Your task to perform on an android device: install app "Microsoft Authenticator" Image 0: 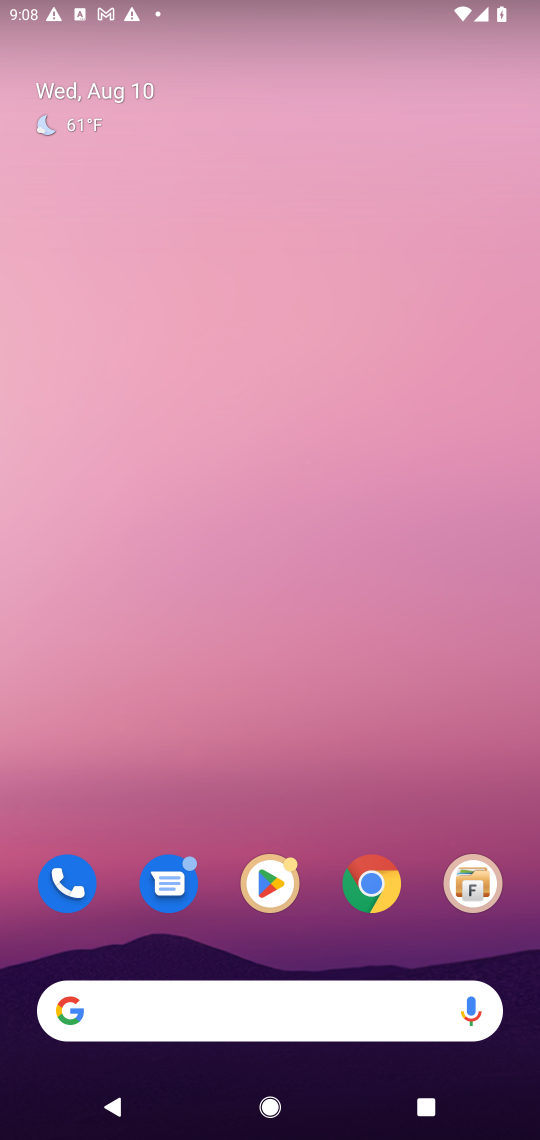
Step 0: click (263, 884)
Your task to perform on an android device: install app "Microsoft Authenticator" Image 1: 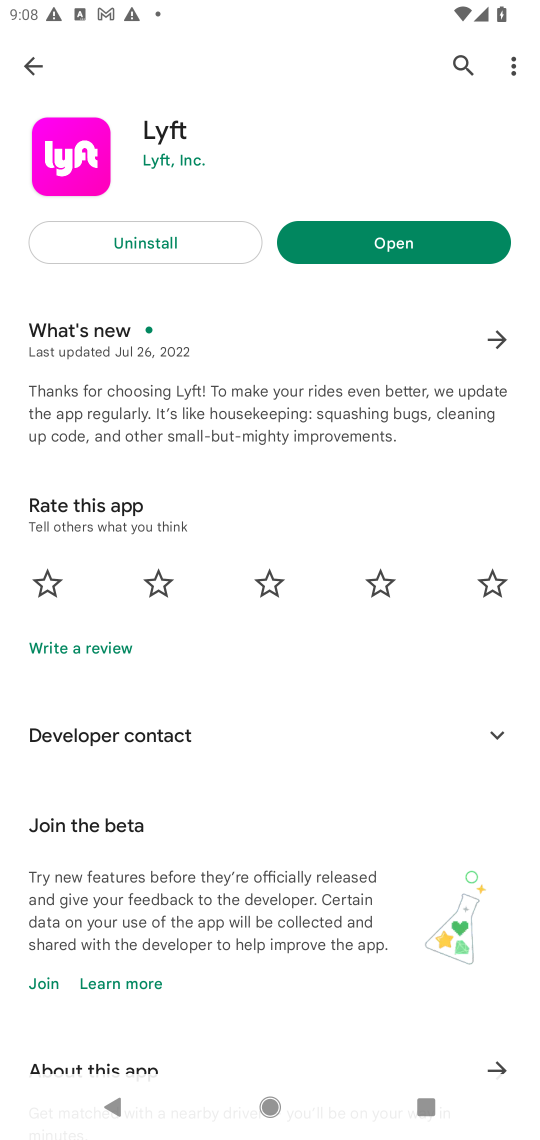
Step 1: click (451, 69)
Your task to perform on an android device: install app "Microsoft Authenticator" Image 2: 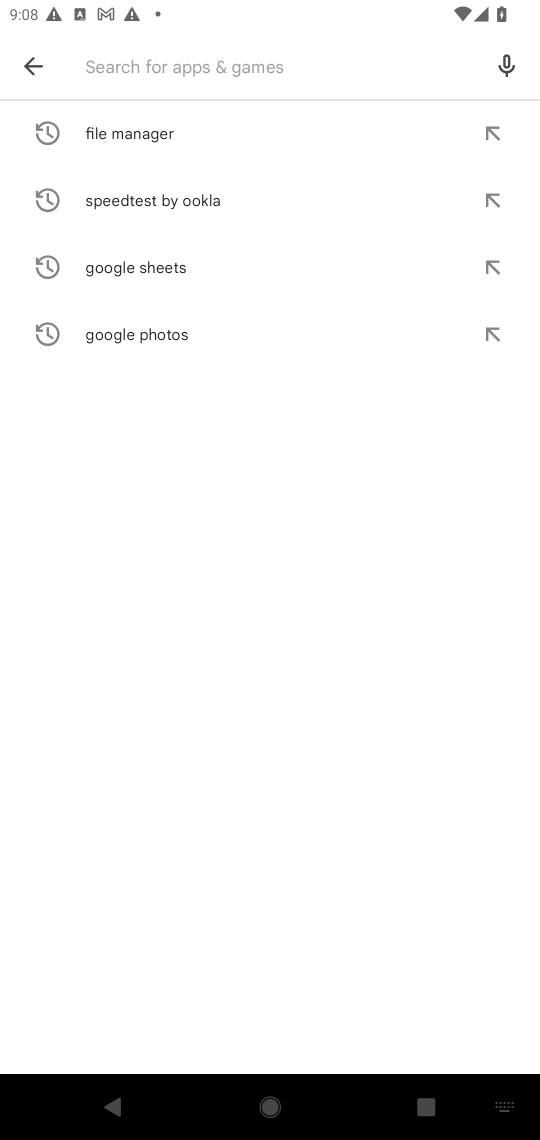
Step 2: type "Microsoft Authenticator"
Your task to perform on an android device: install app "Microsoft Authenticator" Image 3: 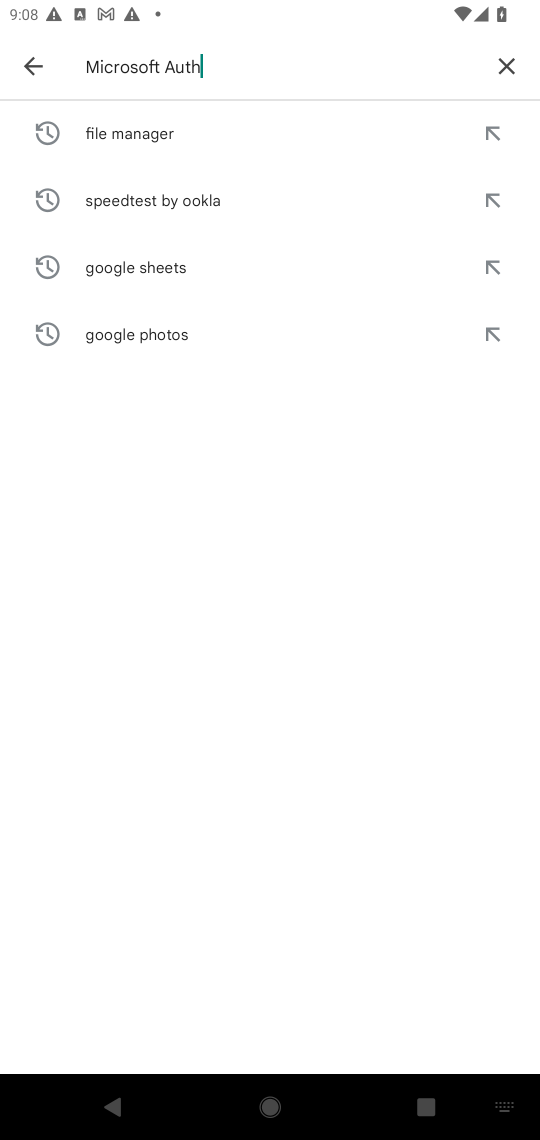
Step 3: type ""
Your task to perform on an android device: install app "Microsoft Authenticator" Image 4: 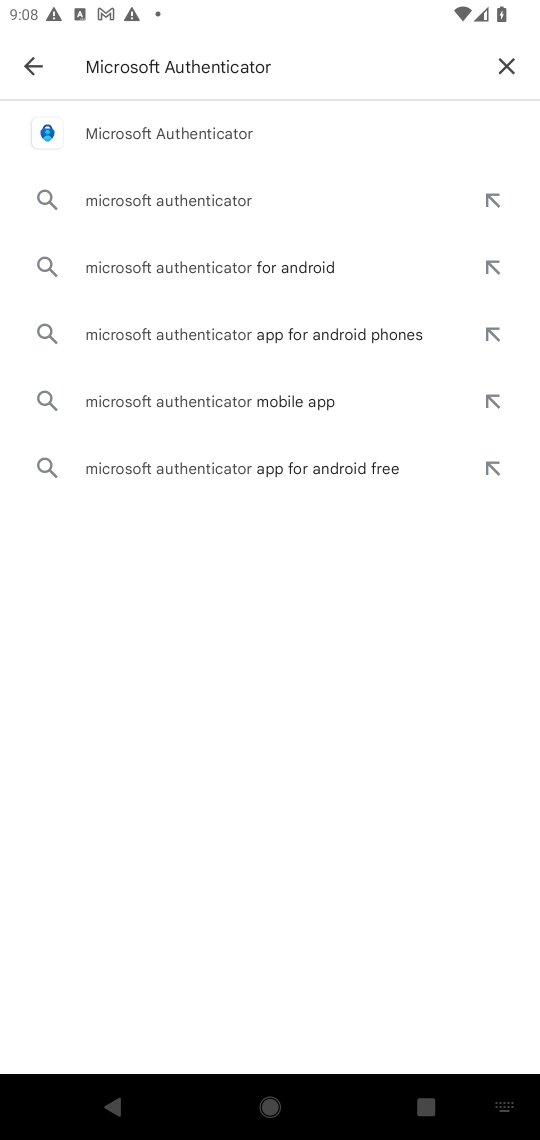
Step 4: click (207, 144)
Your task to perform on an android device: install app "Microsoft Authenticator" Image 5: 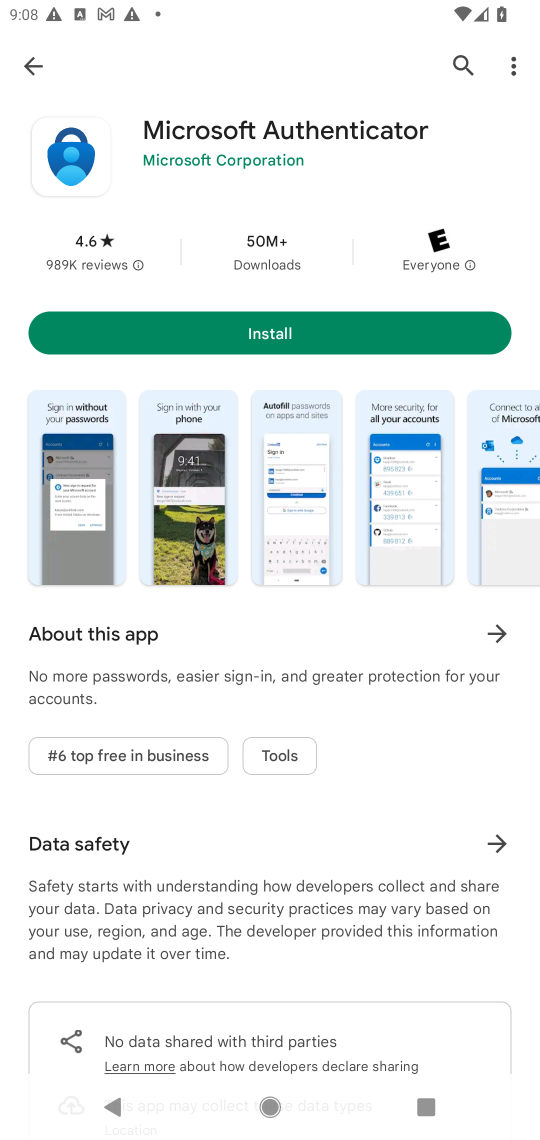
Step 5: click (334, 339)
Your task to perform on an android device: install app "Microsoft Authenticator" Image 6: 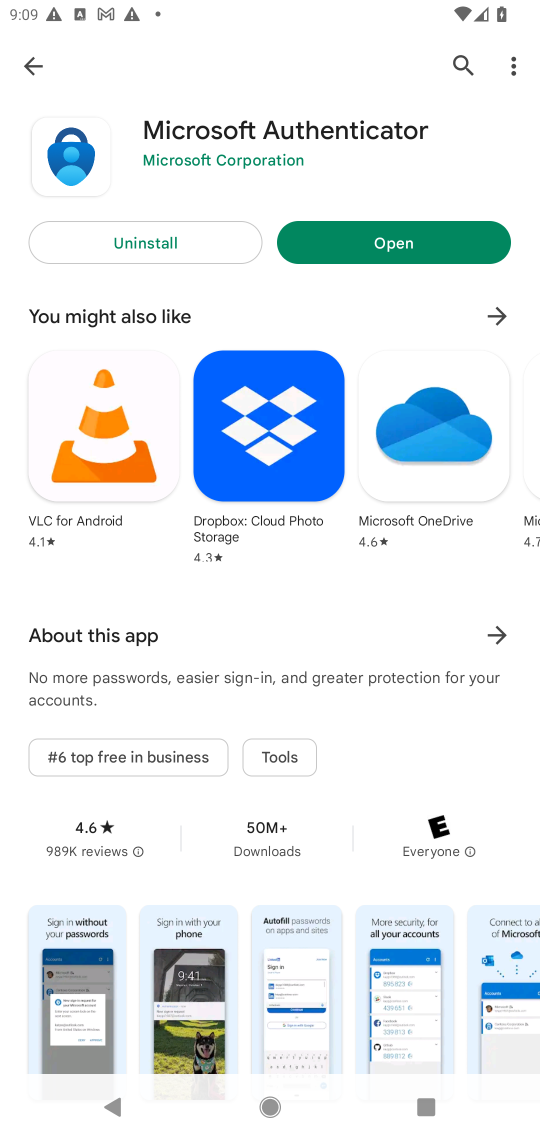
Step 6: task complete